Your task to perform on an android device: Set the phone to "Do not disturb". Image 0: 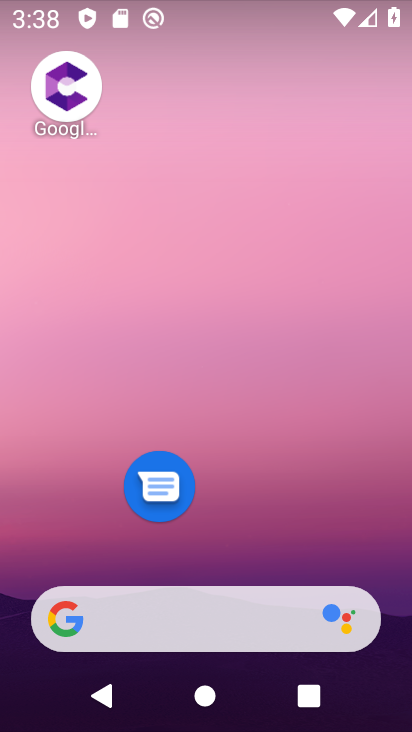
Step 0: drag from (278, 476) to (239, 23)
Your task to perform on an android device: Set the phone to "Do not disturb". Image 1: 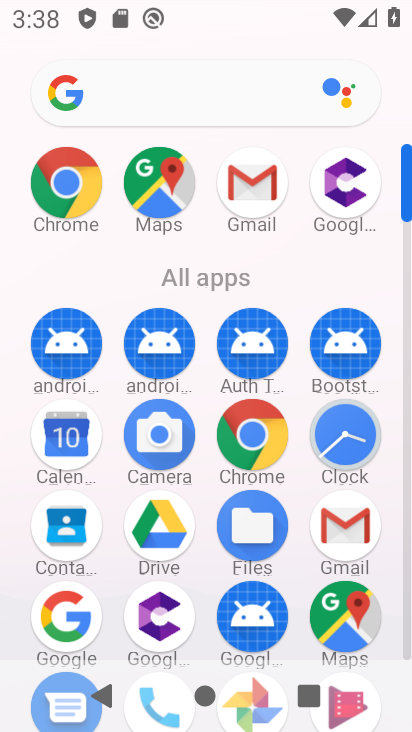
Step 1: drag from (8, 557) to (12, 259)
Your task to perform on an android device: Set the phone to "Do not disturb". Image 2: 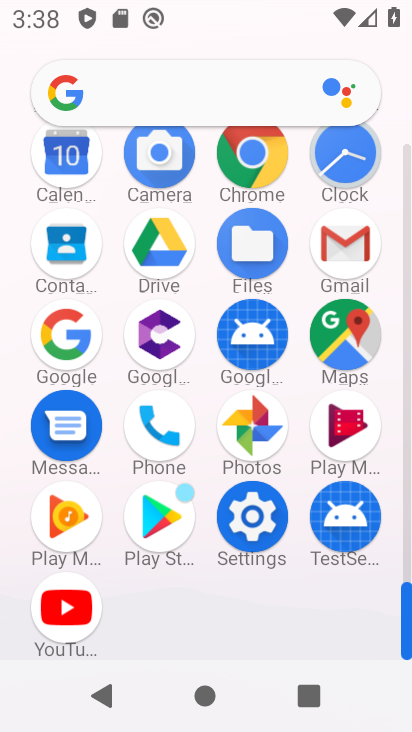
Step 2: click (251, 514)
Your task to perform on an android device: Set the phone to "Do not disturb". Image 3: 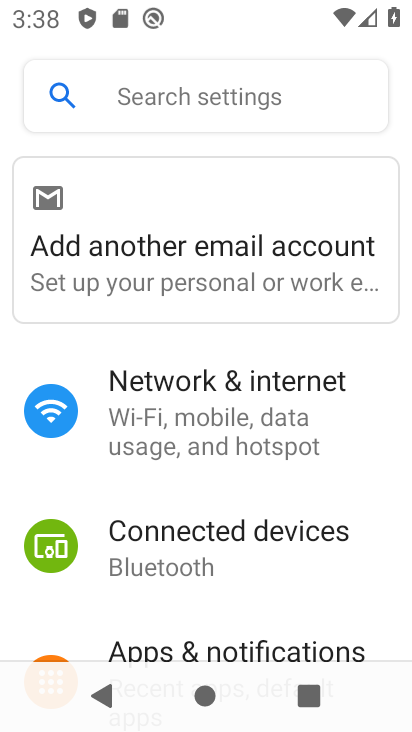
Step 3: drag from (293, 554) to (341, 163)
Your task to perform on an android device: Set the phone to "Do not disturb". Image 4: 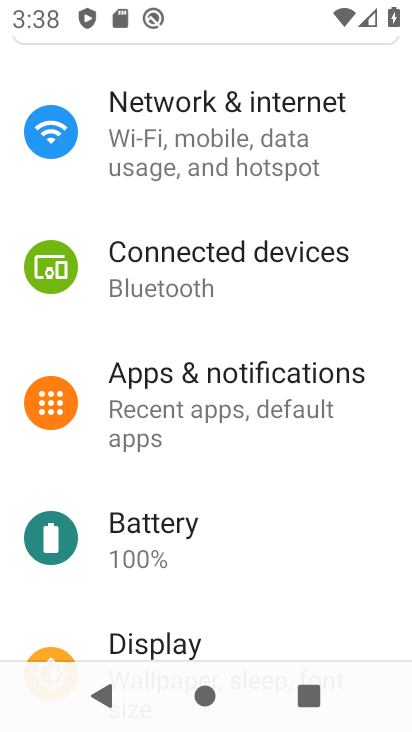
Step 4: drag from (289, 547) to (292, 64)
Your task to perform on an android device: Set the phone to "Do not disturb". Image 5: 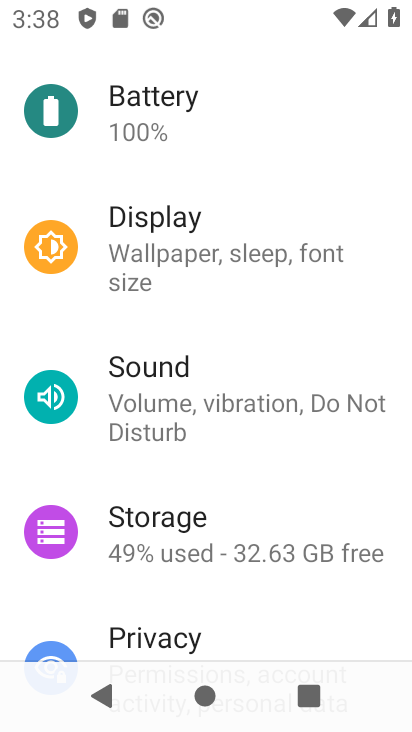
Step 5: drag from (225, 595) to (265, 192)
Your task to perform on an android device: Set the phone to "Do not disturb". Image 6: 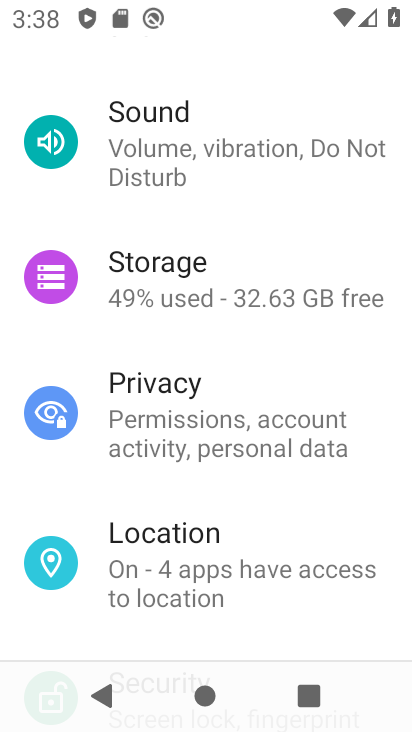
Step 6: drag from (262, 551) to (239, 503)
Your task to perform on an android device: Set the phone to "Do not disturb". Image 7: 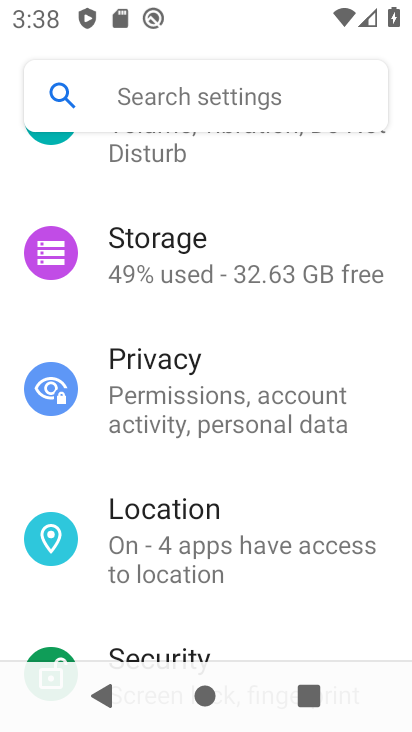
Step 7: drag from (233, 209) to (228, 454)
Your task to perform on an android device: Set the phone to "Do not disturb". Image 8: 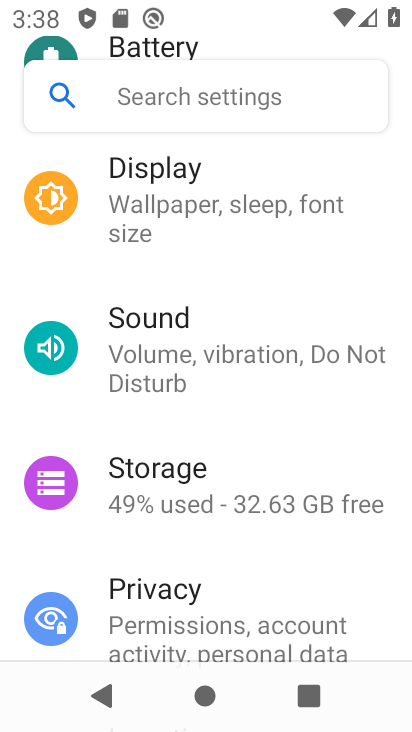
Step 8: click (218, 386)
Your task to perform on an android device: Set the phone to "Do not disturb". Image 9: 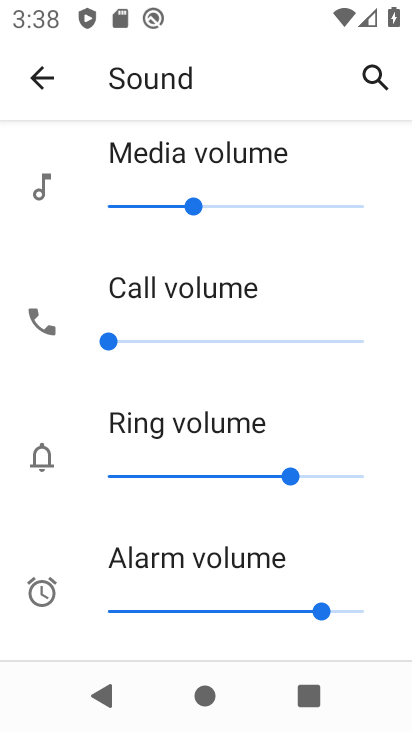
Step 9: drag from (259, 480) to (232, 142)
Your task to perform on an android device: Set the phone to "Do not disturb". Image 10: 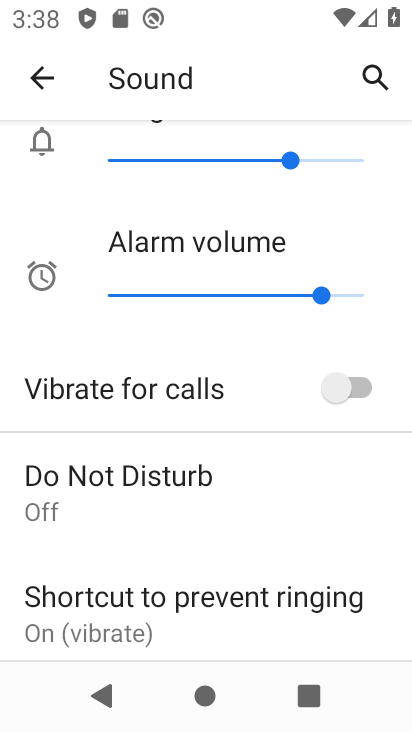
Step 10: click (190, 476)
Your task to perform on an android device: Set the phone to "Do not disturb". Image 11: 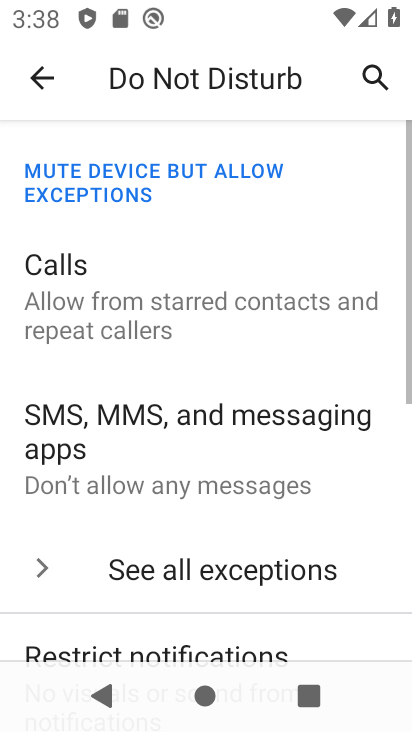
Step 11: drag from (273, 505) to (278, 123)
Your task to perform on an android device: Set the phone to "Do not disturb". Image 12: 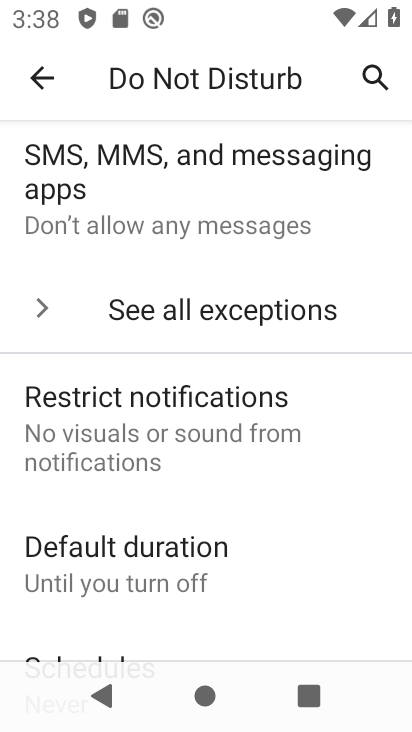
Step 12: drag from (183, 632) to (250, 155)
Your task to perform on an android device: Set the phone to "Do not disturb". Image 13: 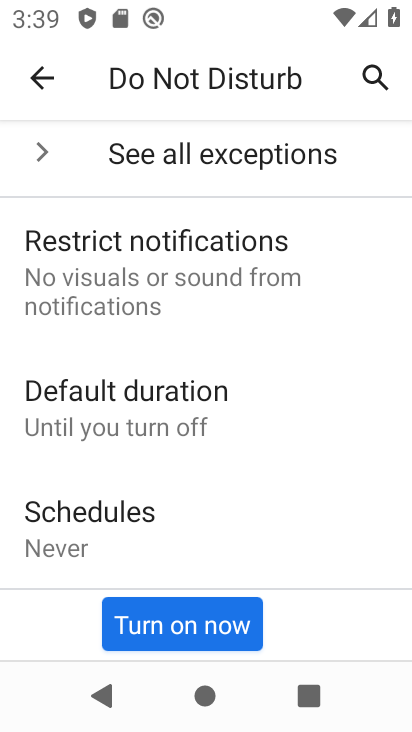
Step 13: click (198, 614)
Your task to perform on an android device: Set the phone to "Do not disturb". Image 14: 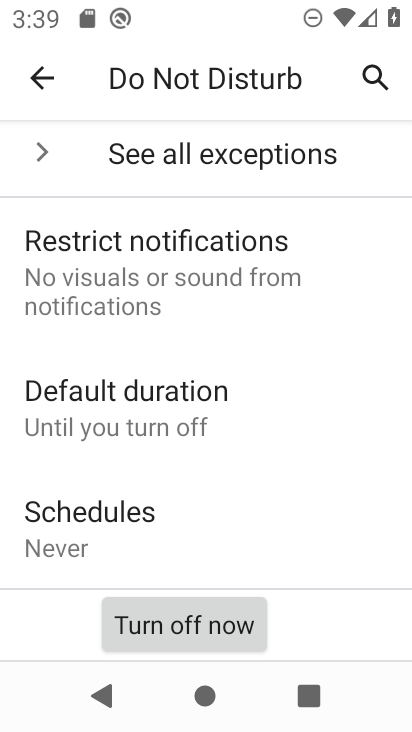
Step 14: task complete